Your task to perform on an android device: Show me popular videos on Youtube Image 0: 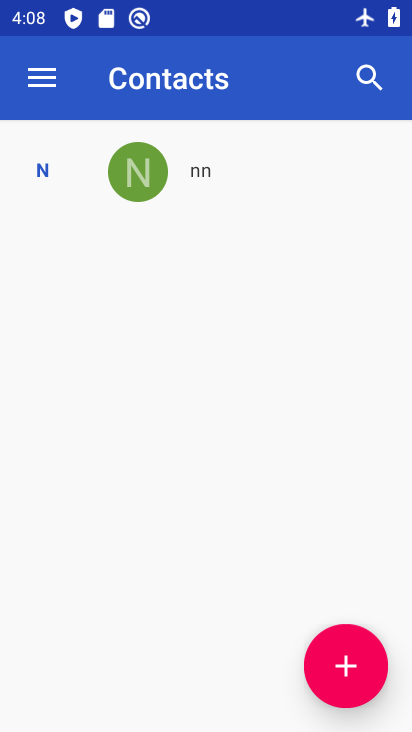
Step 0: press home button
Your task to perform on an android device: Show me popular videos on Youtube Image 1: 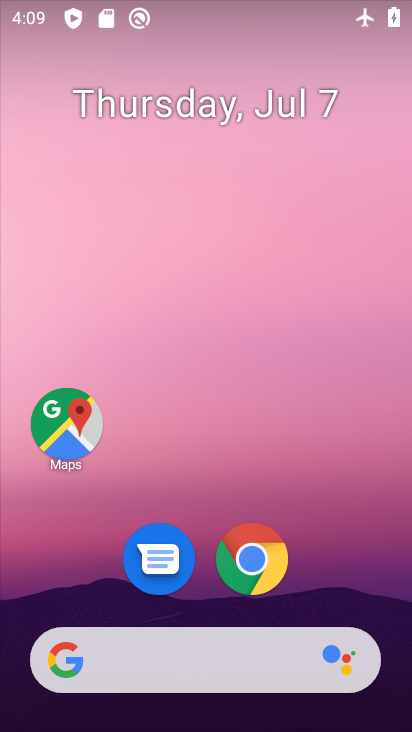
Step 1: drag from (203, 618) to (162, 690)
Your task to perform on an android device: Show me popular videos on Youtube Image 2: 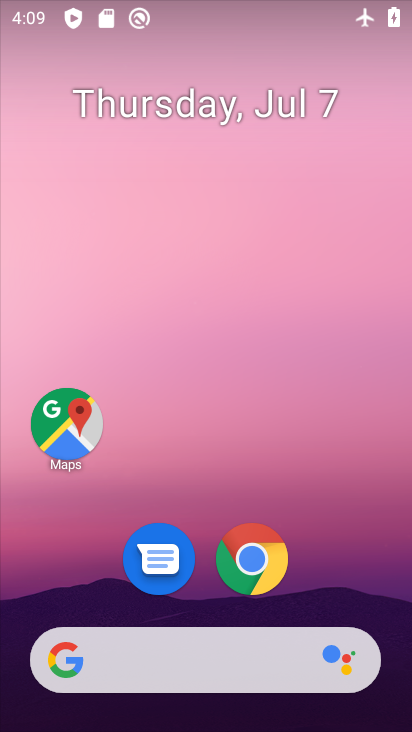
Step 2: drag from (223, 609) to (138, 34)
Your task to perform on an android device: Show me popular videos on Youtube Image 3: 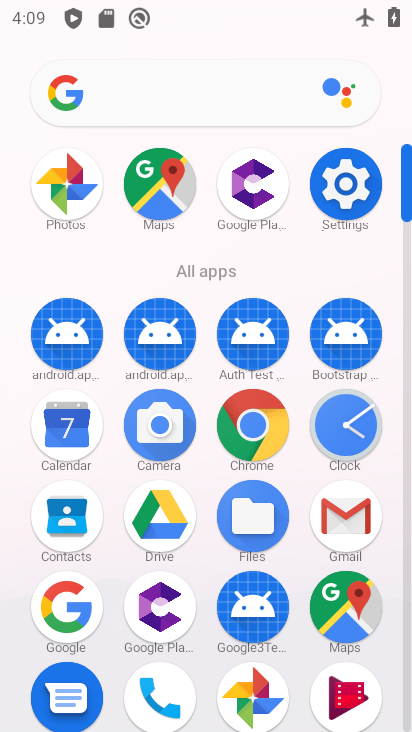
Step 3: drag from (212, 609) to (147, 122)
Your task to perform on an android device: Show me popular videos on Youtube Image 4: 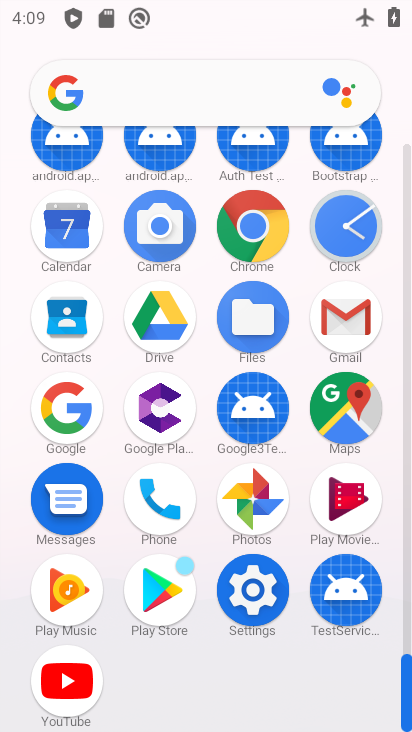
Step 4: click (77, 660)
Your task to perform on an android device: Show me popular videos on Youtube Image 5: 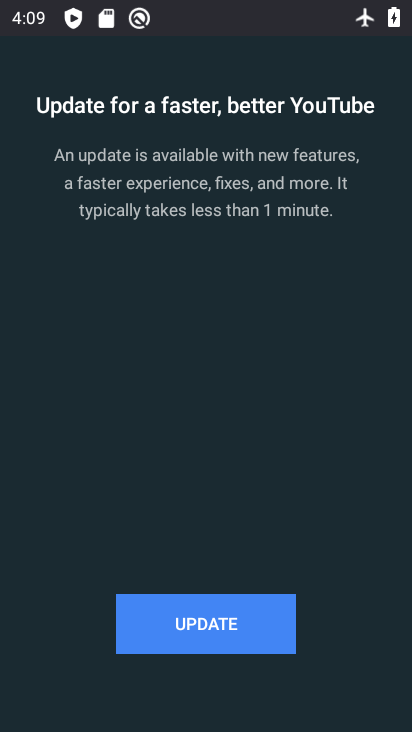
Step 5: click (250, 611)
Your task to perform on an android device: Show me popular videos on Youtube Image 6: 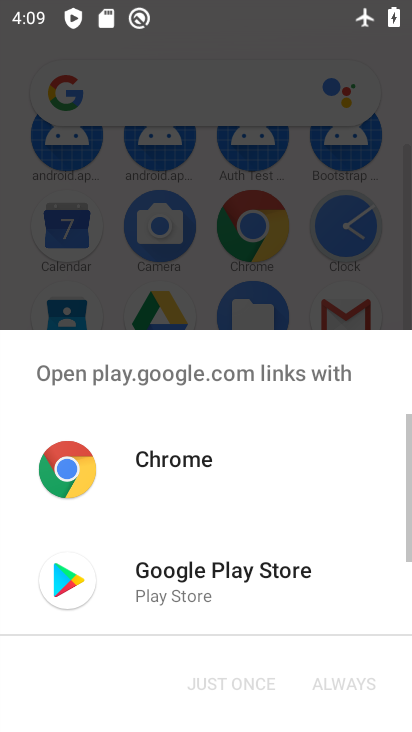
Step 6: click (240, 573)
Your task to perform on an android device: Show me popular videos on Youtube Image 7: 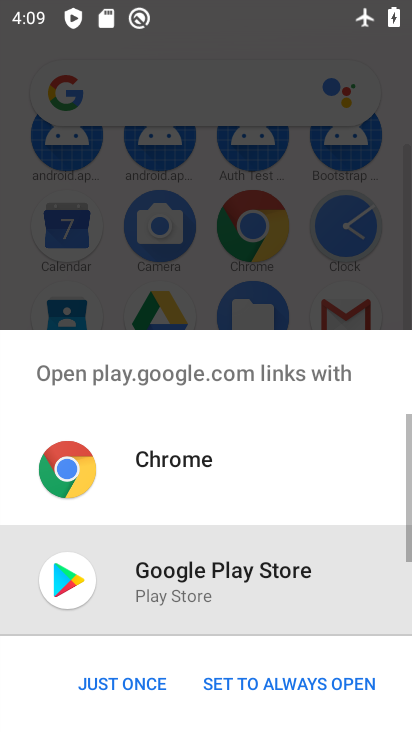
Step 7: click (94, 689)
Your task to perform on an android device: Show me popular videos on Youtube Image 8: 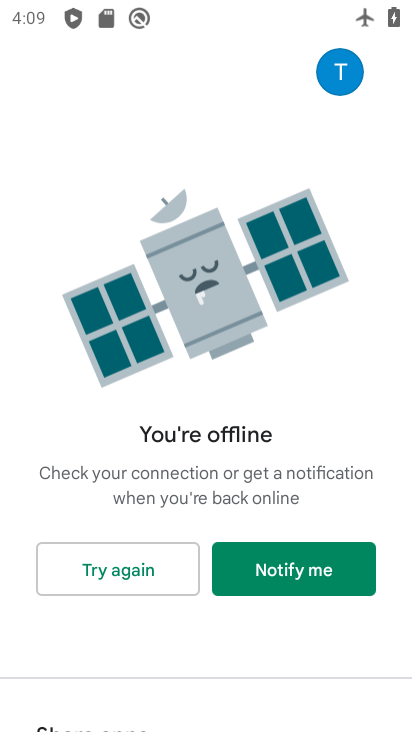
Step 8: task complete